Your task to perform on an android device: Open the map Image 0: 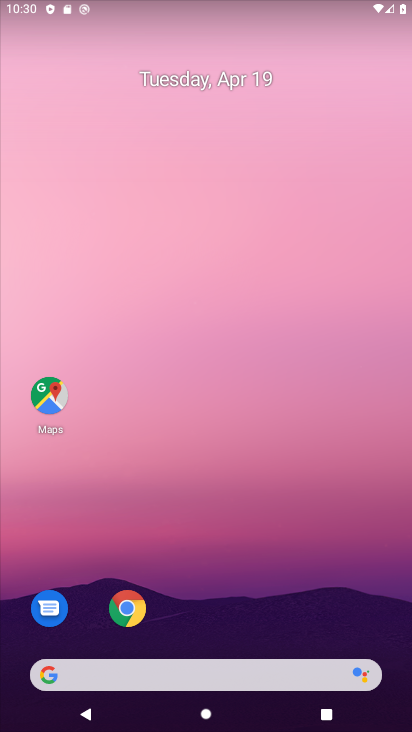
Step 0: click (137, 152)
Your task to perform on an android device: Open the map Image 1: 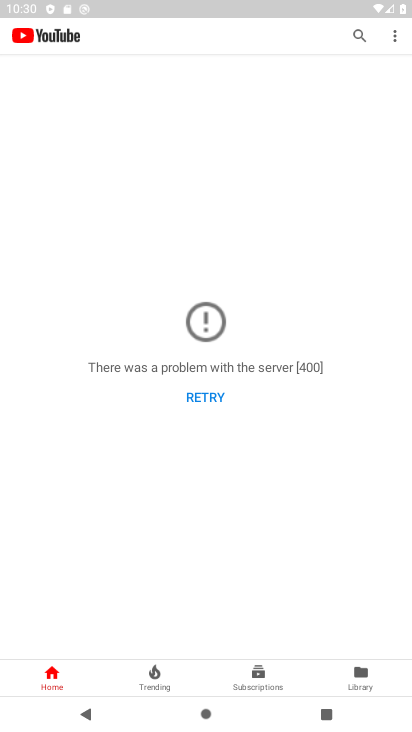
Step 1: click (200, 712)
Your task to perform on an android device: Open the map Image 2: 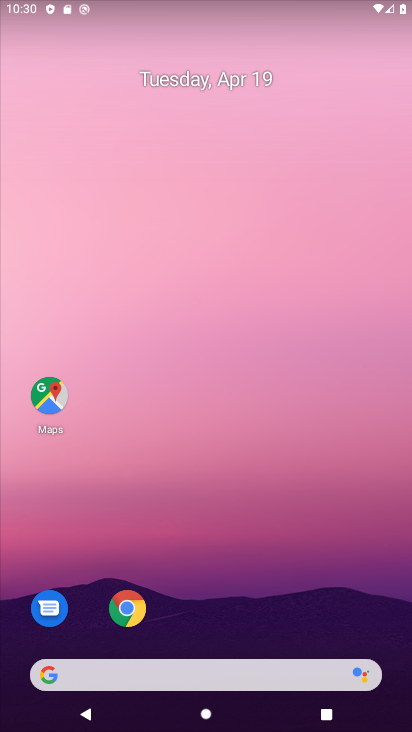
Step 2: click (58, 388)
Your task to perform on an android device: Open the map Image 3: 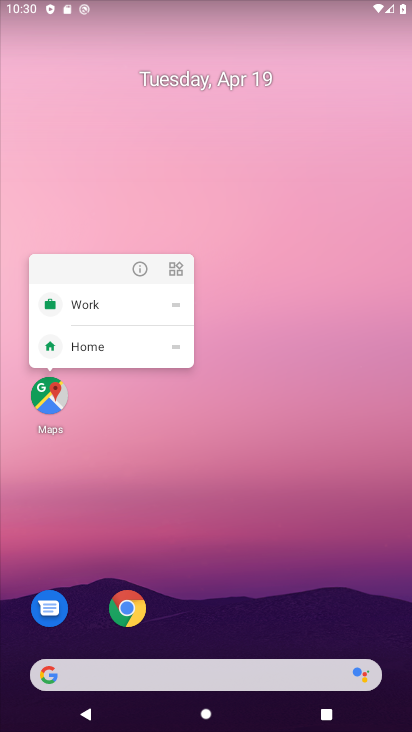
Step 3: click (58, 388)
Your task to perform on an android device: Open the map Image 4: 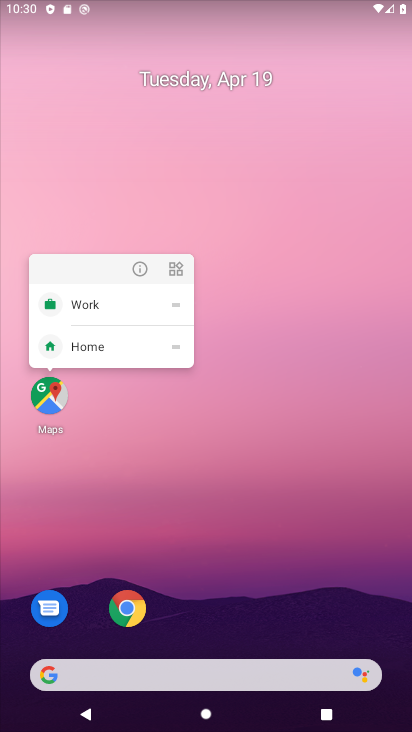
Step 4: click (58, 388)
Your task to perform on an android device: Open the map Image 5: 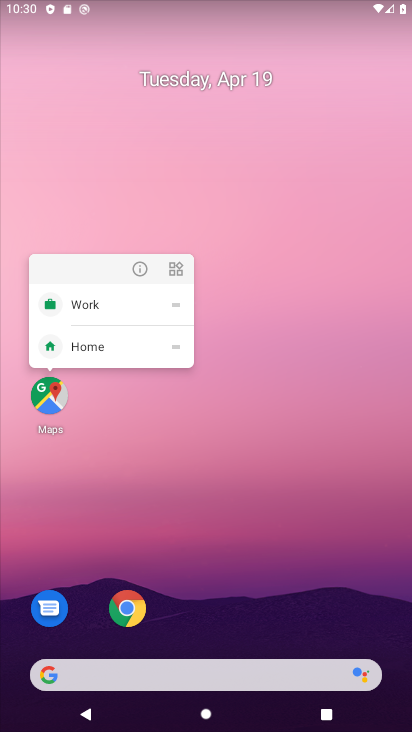
Step 5: click (58, 388)
Your task to perform on an android device: Open the map Image 6: 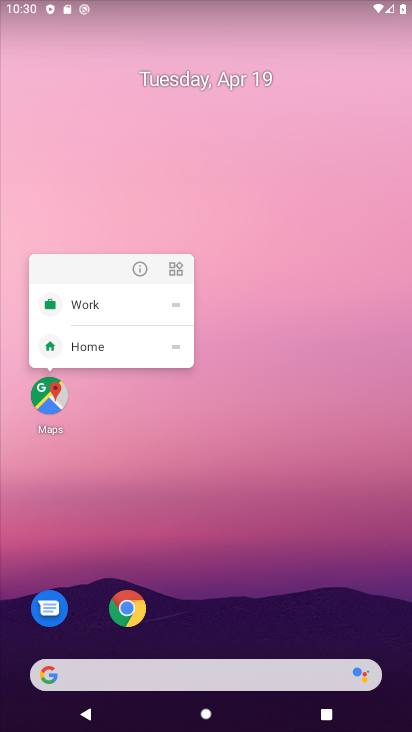
Step 6: click (57, 397)
Your task to perform on an android device: Open the map Image 7: 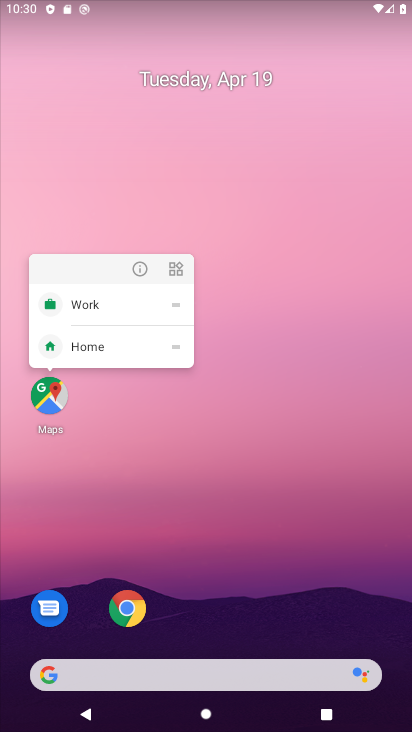
Step 7: click (57, 397)
Your task to perform on an android device: Open the map Image 8: 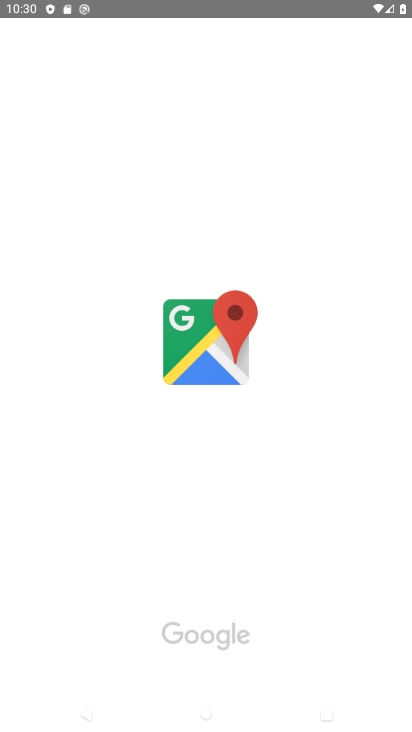
Step 8: click (57, 397)
Your task to perform on an android device: Open the map Image 9: 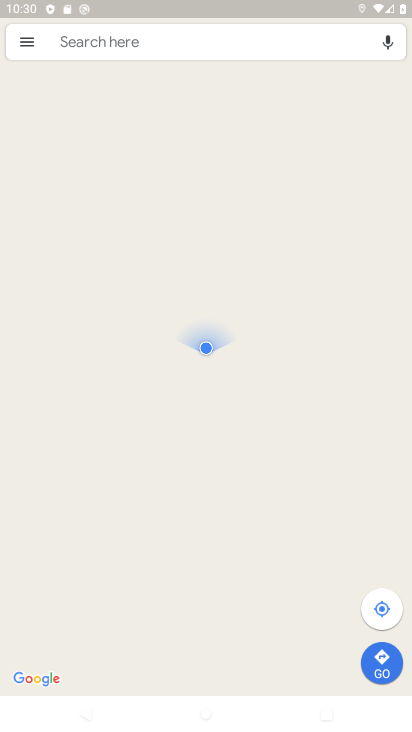
Step 9: task complete